Your task to perform on an android device: Open settings Image 0: 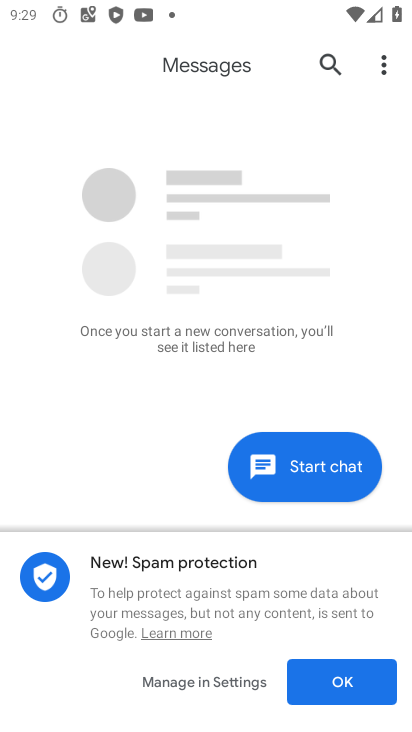
Step 0: press home button
Your task to perform on an android device: Open settings Image 1: 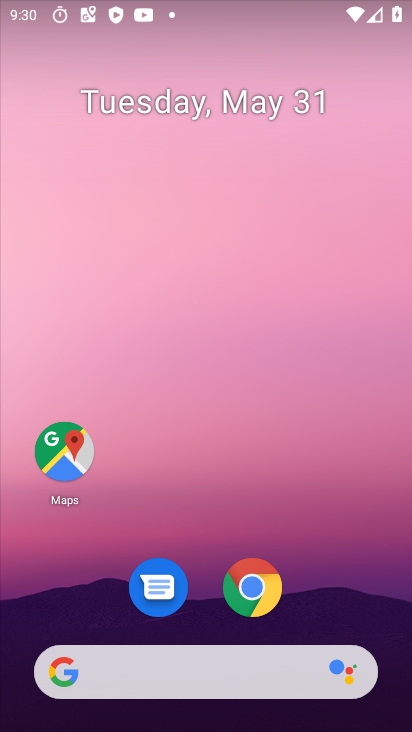
Step 1: drag from (226, 501) to (308, 75)
Your task to perform on an android device: Open settings Image 2: 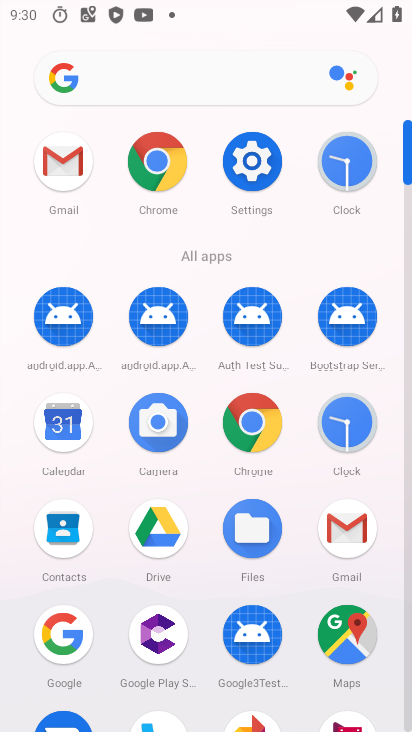
Step 2: click (245, 170)
Your task to perform on an android device: Open settings Image 3: 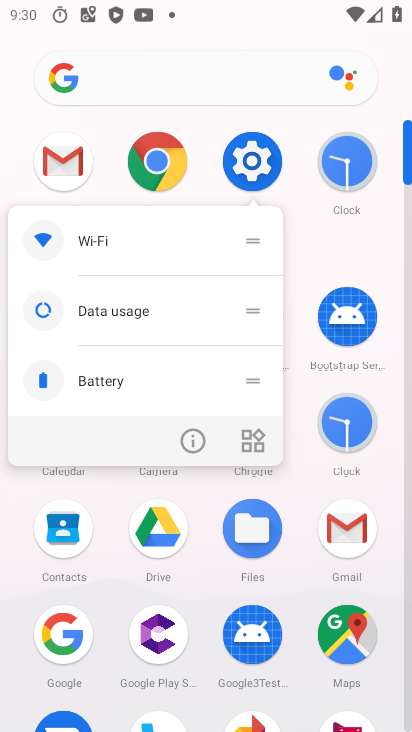
Step 3: click (245, 170)
Your task to perform on an android device: Open settings Image 4: 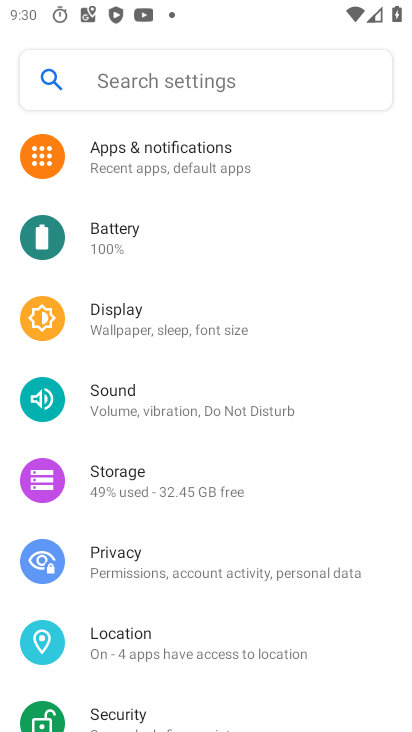
Step 4: task complete